Your task to perform on an android device: add a contact Image 0: 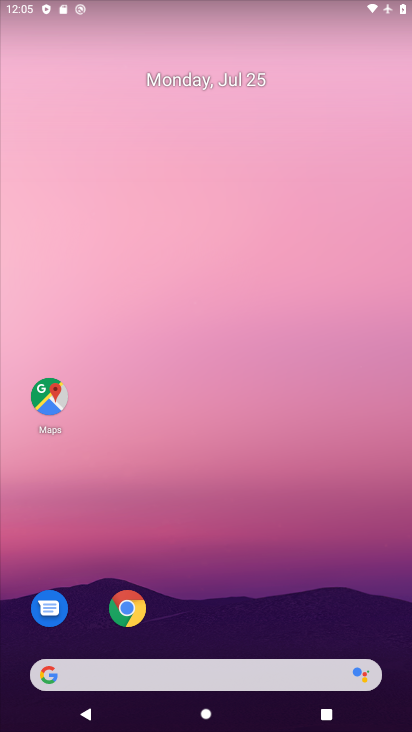
Step 0: drag from (184, 638) to (192, 204)
Your task to perform on an android device: add a contact Image 1: 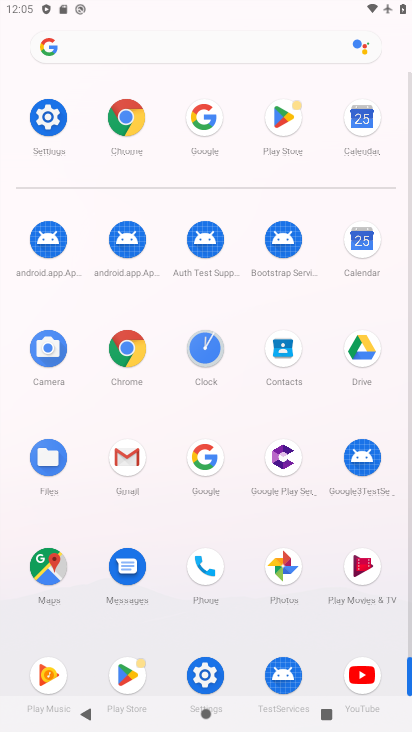
Step 1: click (289, 377)
Your task to perform on an android device: add a contact Image 2: 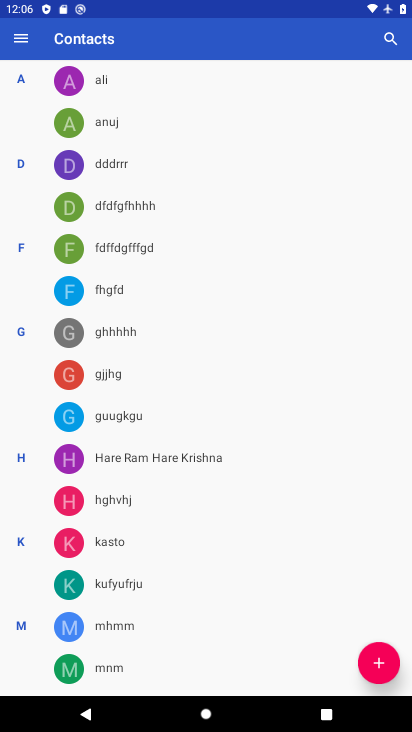
Step 2: click (373, 660)
Your task to perform on an android device: add a contact Image 3: 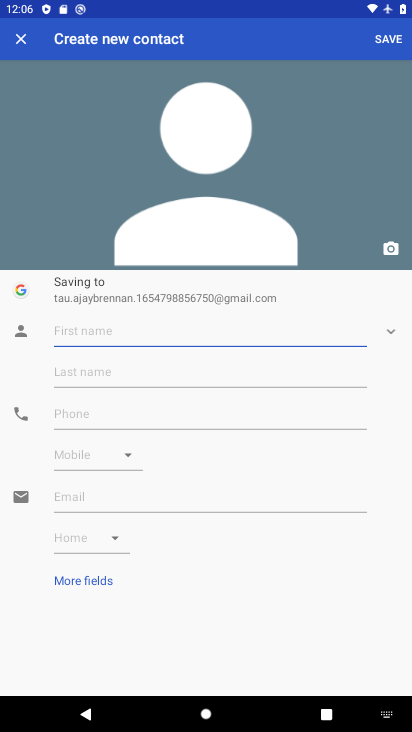
Step 3: type "  zfxfgbf"
Your task to perform on an android device: add a contact Image 4: 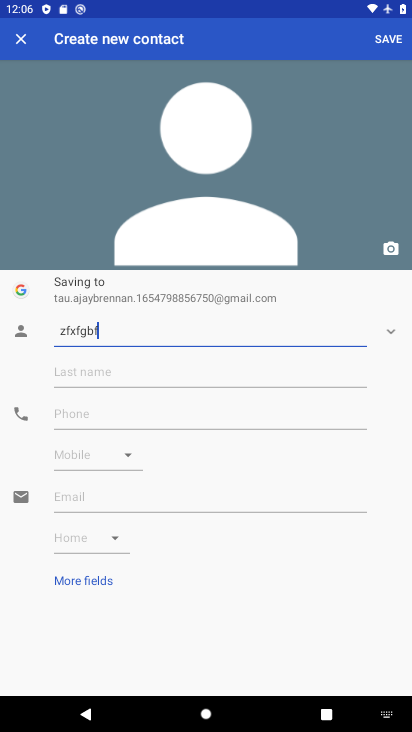
Step 4: type ""
Your task to perform on an android device: add a contact Image 5: 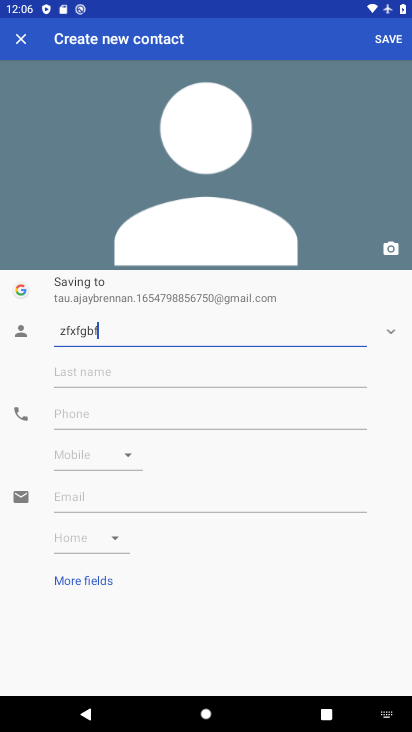
Step 5: click (181, 418)
Your task to perform on an android device: add a contact Image 6: 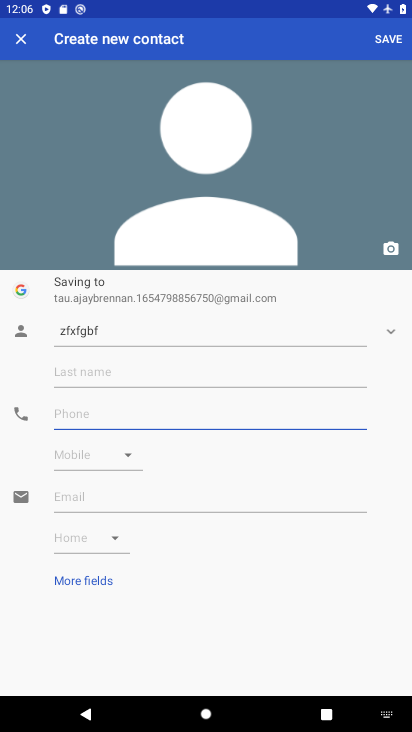
Step 6: type "567897654344"
Your task to perform on an android device: add a contact Image 7: 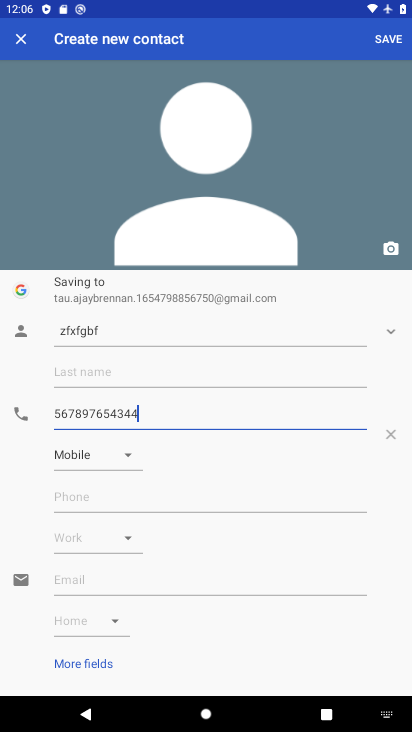
Step 7: click (396, 46)
Your task to perform on an android device: add a contact Image 8: 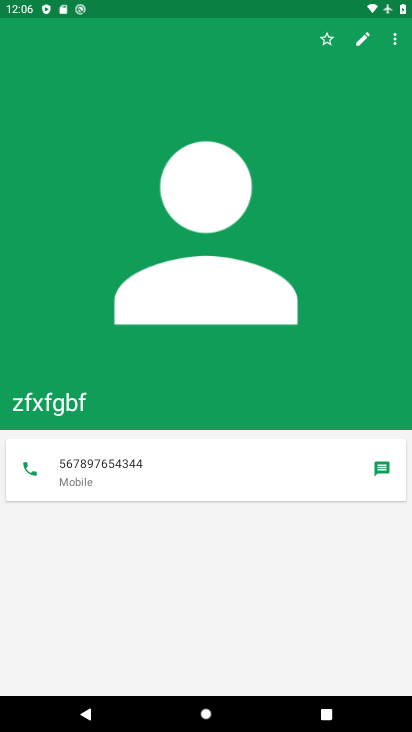
Step 8: task complete